Your task to perform on an android device: Open the Play Movies app and select the watchlist tab. Image 0: 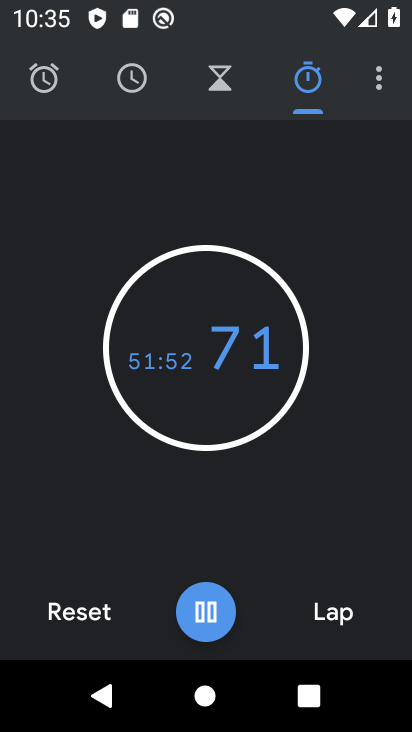
Step 0: drag from (380, 569) to (385, 340)
Your task to perform on an android device: Open the Play Movies app and select the watchlist tab. Image 1: 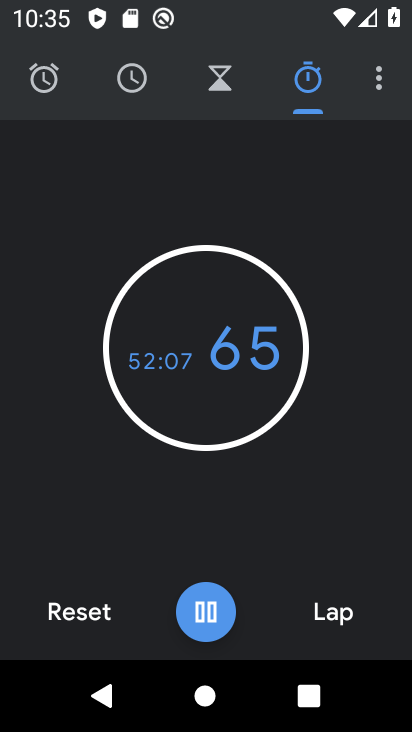
Step 1: press home button
Your task to perform on an android device: Open the Play Movies app and select the watchlist tab. Image 2: 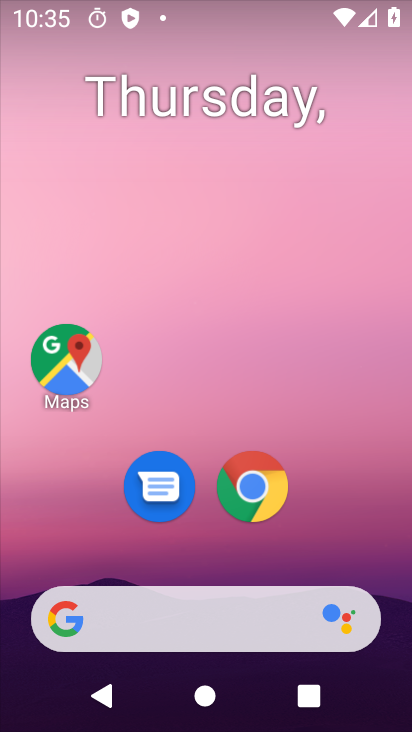
Step 2: drag from (362, 333) to (348, 158)
Your task to perform on an android device: Open the Play Movies app and select the watchlist tab. Image 3: 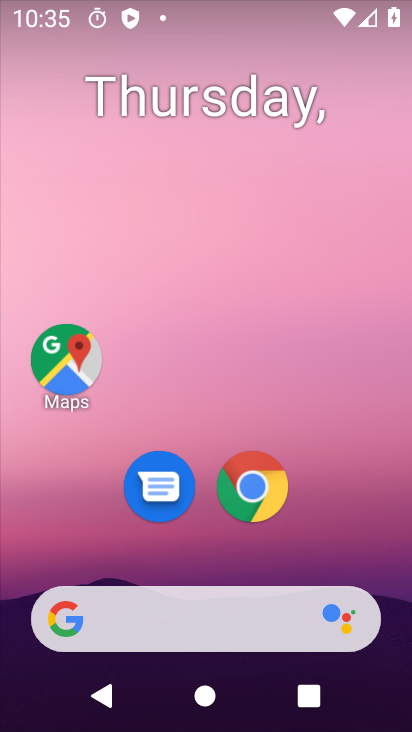
Step 3: drag from (370, 348) to (364, 203)
Your task to perform on an android device: Open the Play Movies app and select the watchlist tab. Image 4: 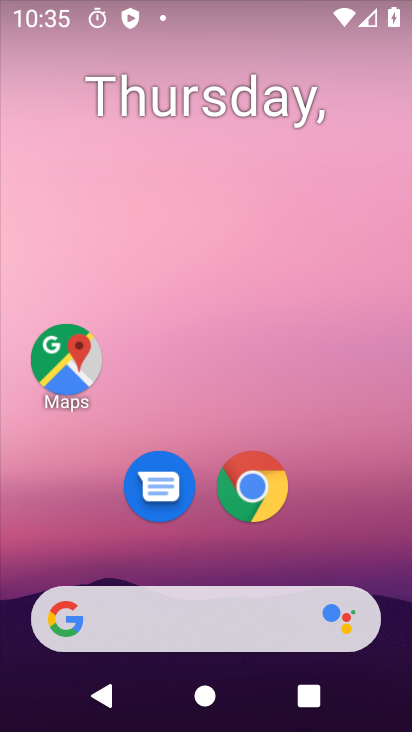
Step 4: drag from (397, 573) to (387, 209)
Your task to perform on an android device: Open the Play Movies app and select the watchlist tab. Image 5: 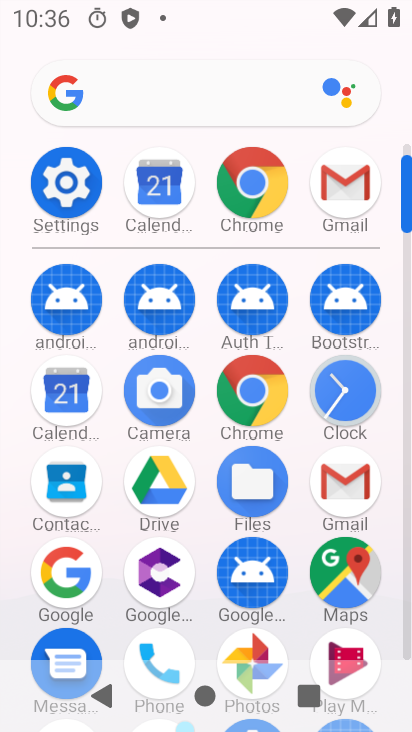
Step 5: click (344, 646)
Your task to perform on an android device: Open the Play Movies app and select the watchlist tab. Image 6: 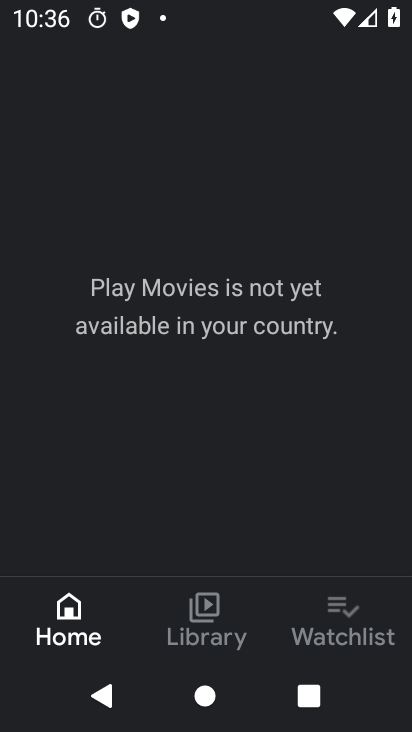
Step 6: click (342, 622)
Your task to perform on an android device: Open the Play Movies app and select the watchlist tab. Image 7: 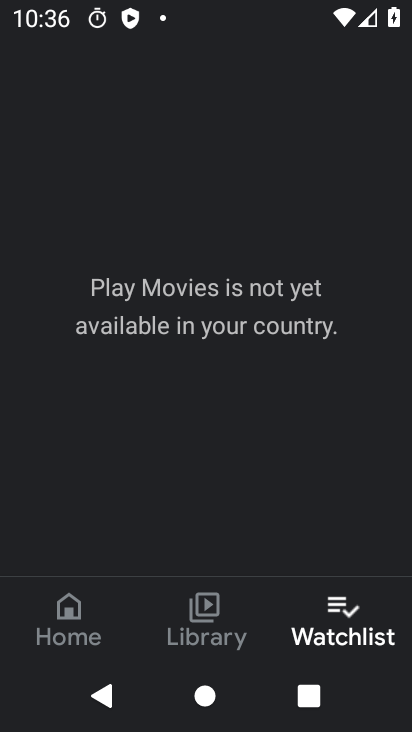
Step 7: task complete